Your task to perform on an android device: Open CNN.com Image 0: 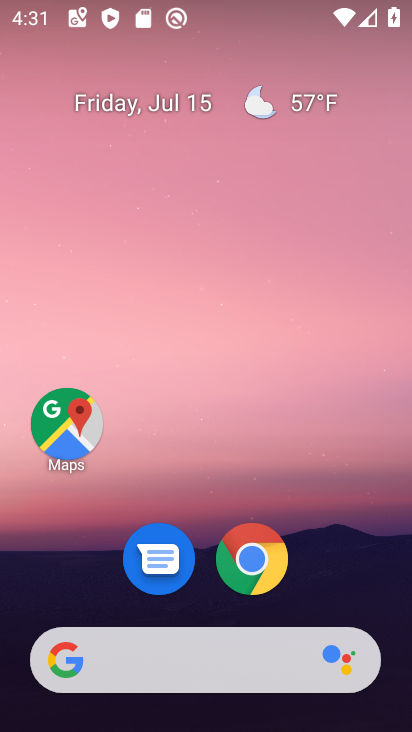
Step 0: click (260, 561)
Your task to perform on an android device: Open CNN.com Image 1: 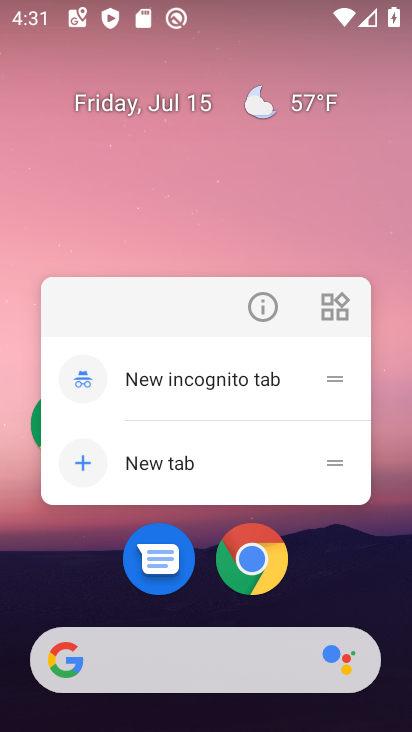
Step 1: click (269, 547)
Your task to perform on an android device: Open CNN.com Image 2: 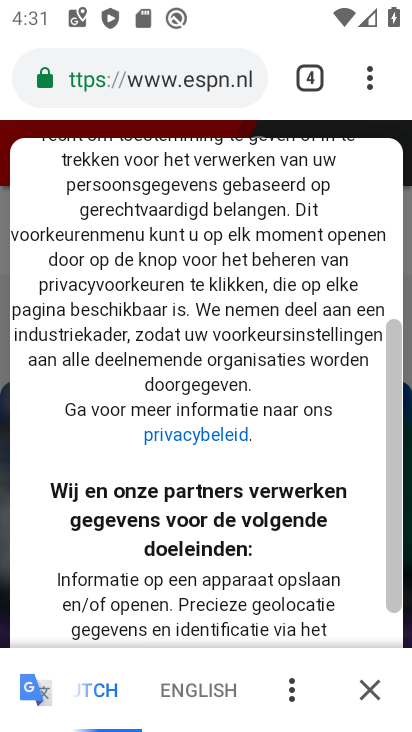
Step 2: click (303, 76)
Your task to perform on an android device: Open CNN.com Image 3: 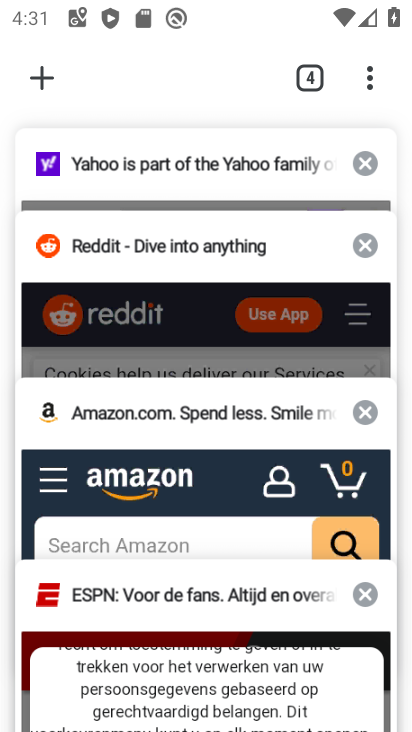
Step 3: click (44, 65)
Your task to perform on an android device: Open CNN.com Image 4: 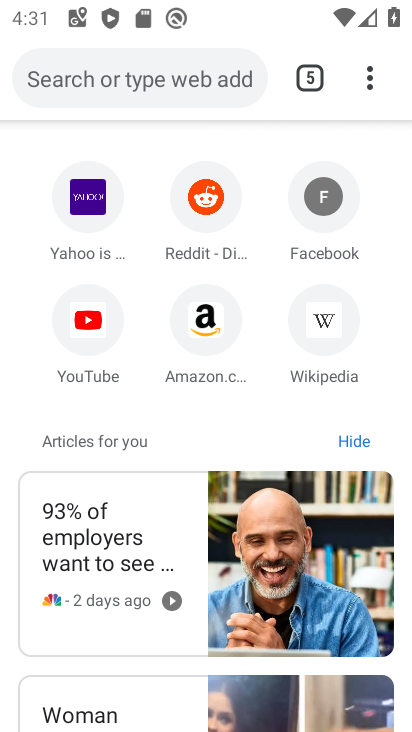
Step 4: click (122, 77)
Your task to perform on an android device: Open CNN.com Image 5: 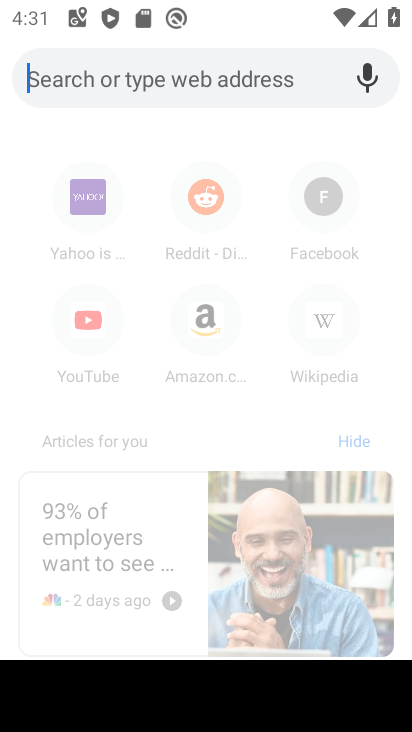
Step 5: type "cnn.com"
Your task to perform on an android device: Open CNN.com Image 6: 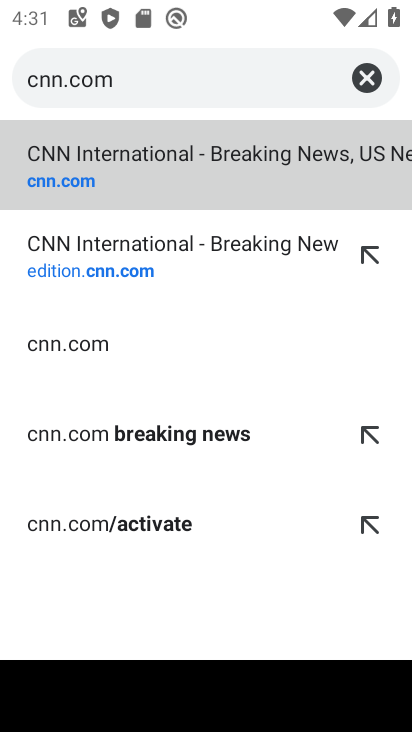
Step 6: click (82, 161)
Your task to perform on an android device: Open CNN.com Image 7: 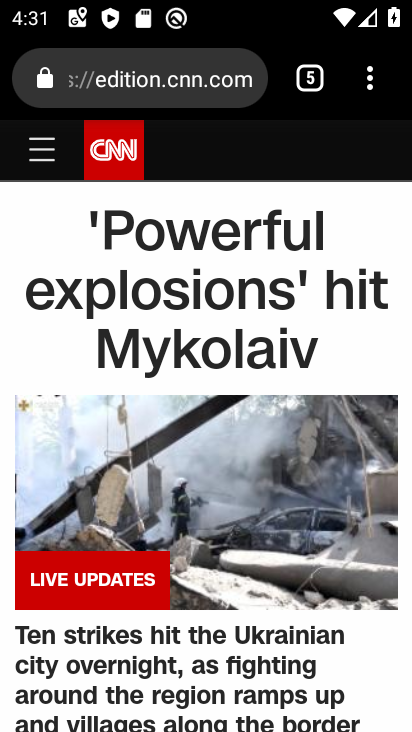
Step 7: task complete